Your task to perform on an android device: show emergency info Image 0: 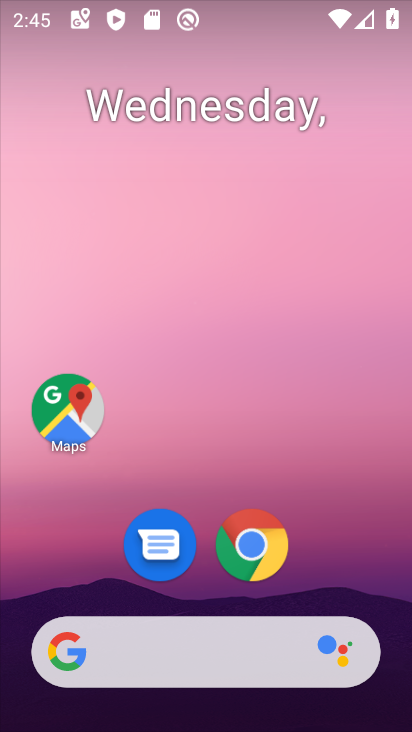
Step 0: press home button
Your task to perform on an android device: show emergency info Image 1: 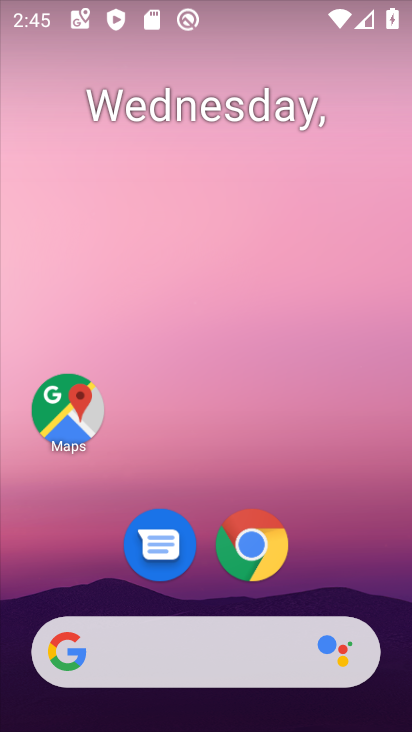
Step 1: drag from (131, 636) to (267, 133)
Your task to perform on an android device: show emergency info Image 2: 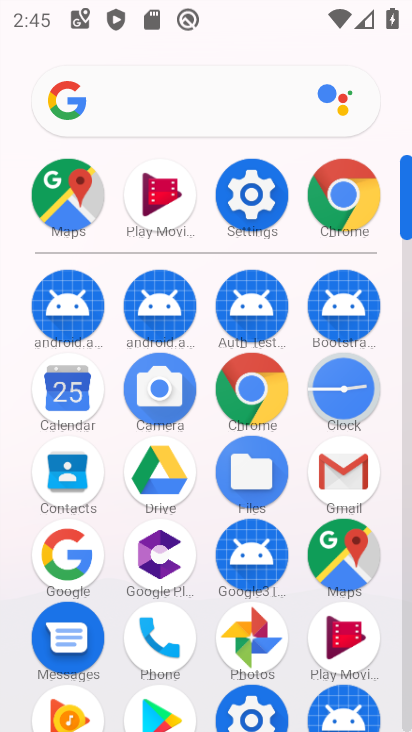
Step 2: drag from (180, 650) to (361, 77)
Your task to perform on an android device: show emergency info Image 3: 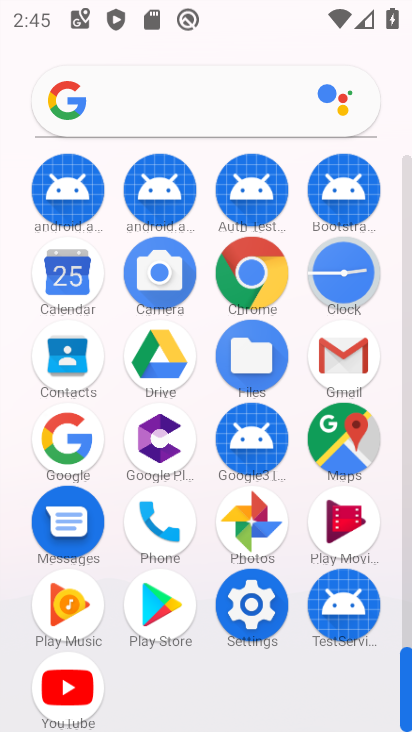
Step 3: click (252, 615)
Your task to perform on an android device: show emergency info Image 4: 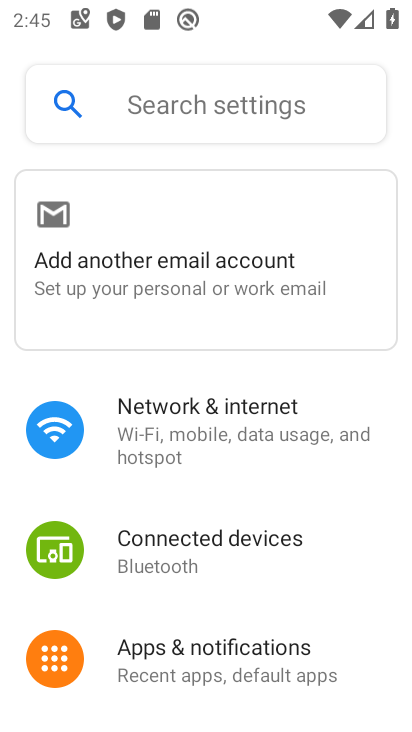
Step 4: drag from (239, 596) to (342, 68)
Your task to perform on an android device: show emergency info Image 5: 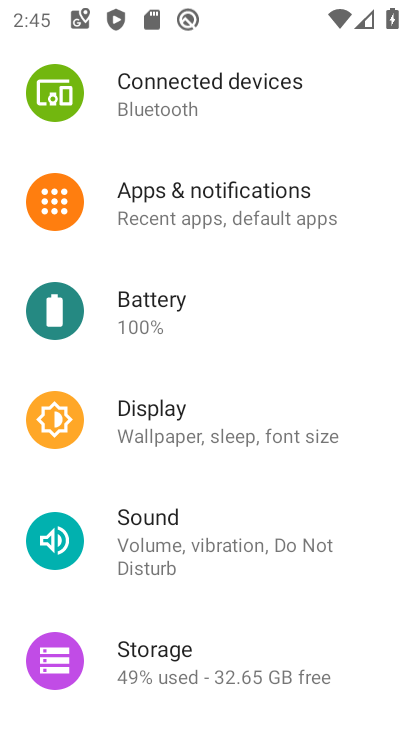
Step 5: drag from (217, 620) to (348, 120)
Your task to perform on an android device: show emergency info Image 6: 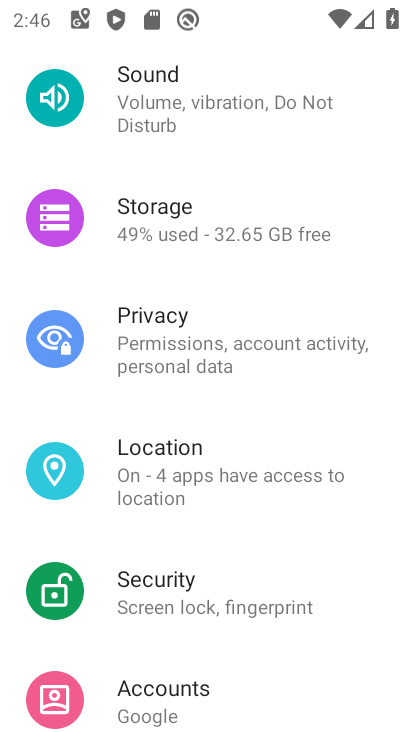
Step 6: drag from (250, 628) to (317, 168)
Your task to perform on an android device: show emergency info Image 7: 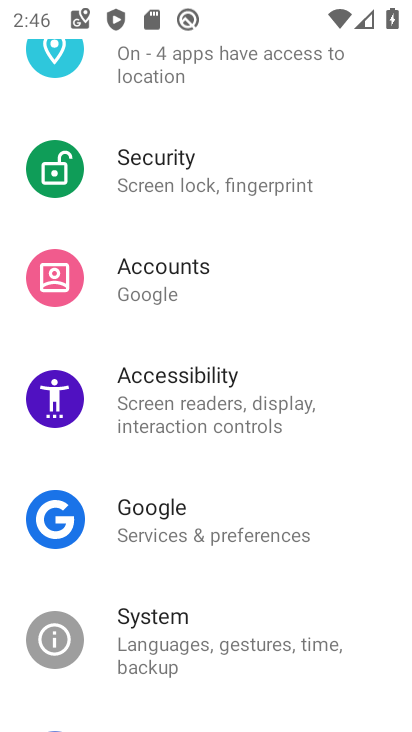
Step 7: drag from (210, 642) to (308, 126)
Your task to perform on an android device: show emergency info Image 8: 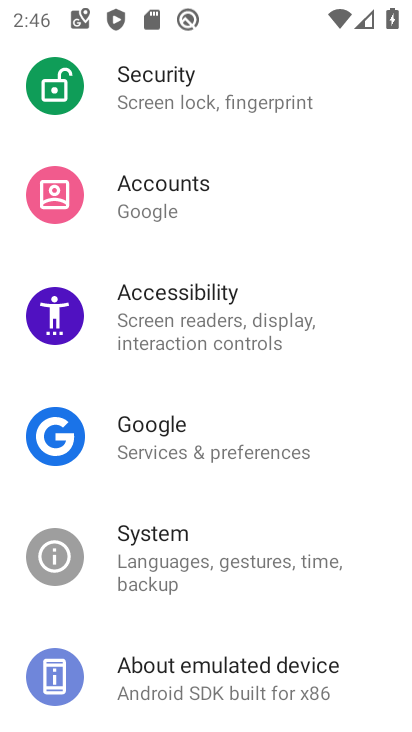
Step 8: click (216, 678)
Your task to perform on an android device: show emergency info Image 9: 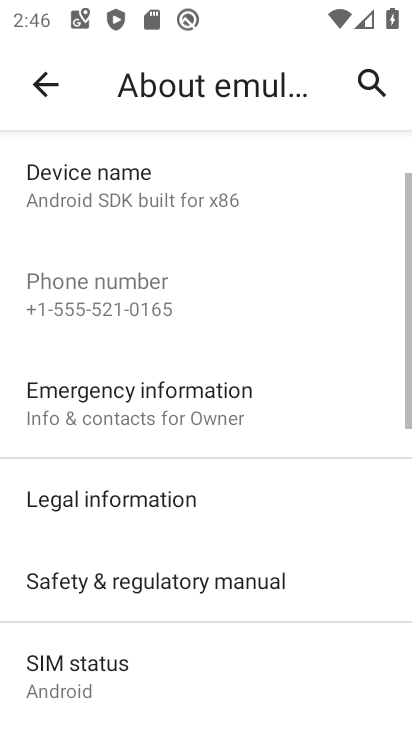
Step 9: click (157, 406)
Your task to perform on an android device: show emergency info Image 10: 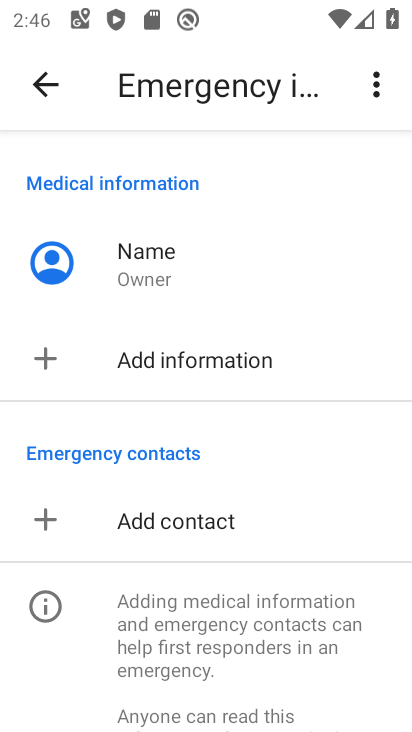
Step 10: task complete